Your task to perform on an android device: install app "Life360: Find Family & Friends" Image 0: 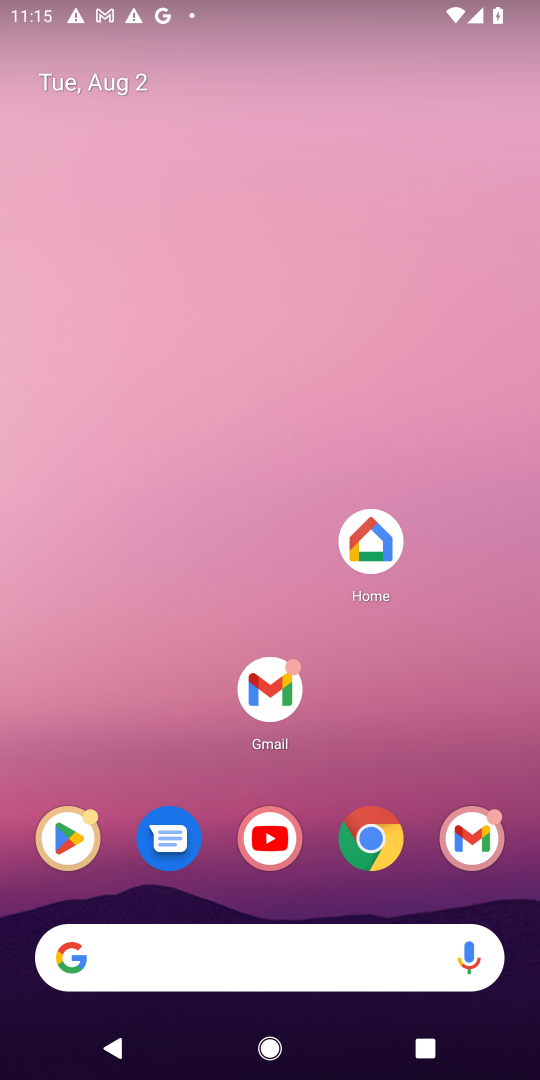
Step 0: drag from (359, 748) to (353, 199)
Your task to perform on an android device: install app "Life360: Find Family & Friends" Image 1: 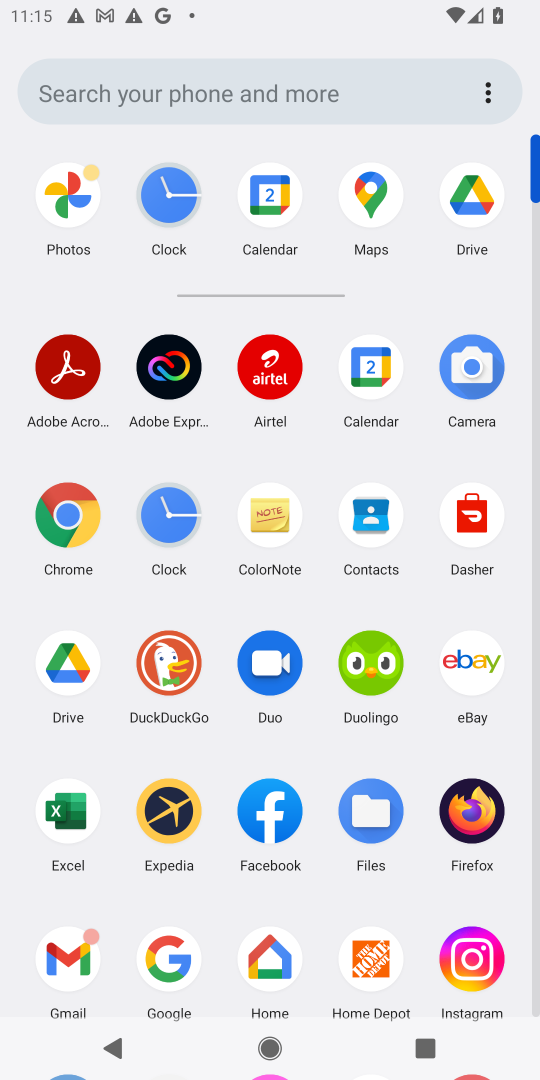
Step 1: drag from (313, 901) to (323, 579)
Your task to perform on an android device: install app "Life360: Find Family & Friends" Image 2: 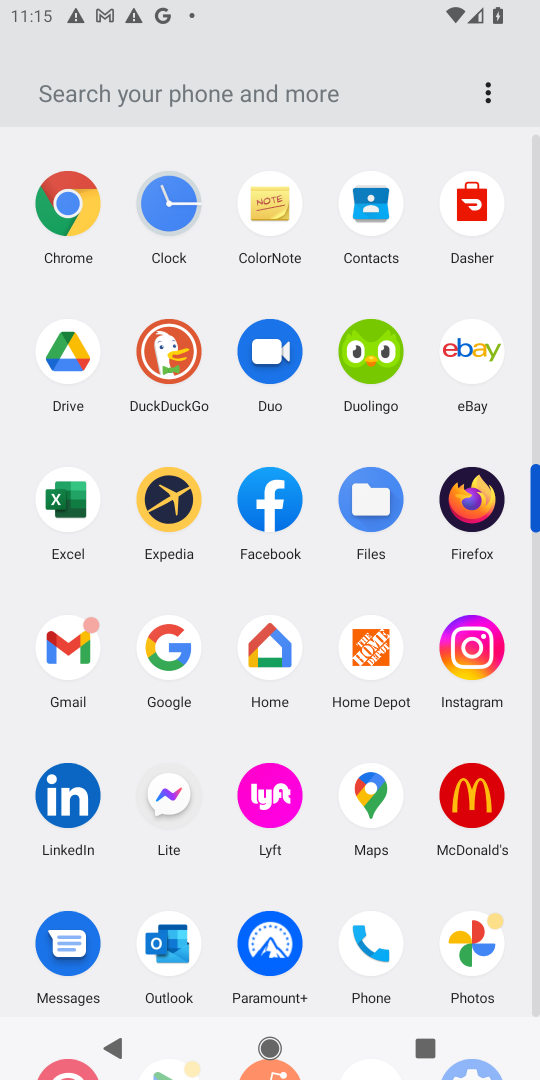
Step 2: drag from (312, 980) to (323, 701)
Your task to perform on an android device: install app "Life360: Find Family & Friends" Image 3: 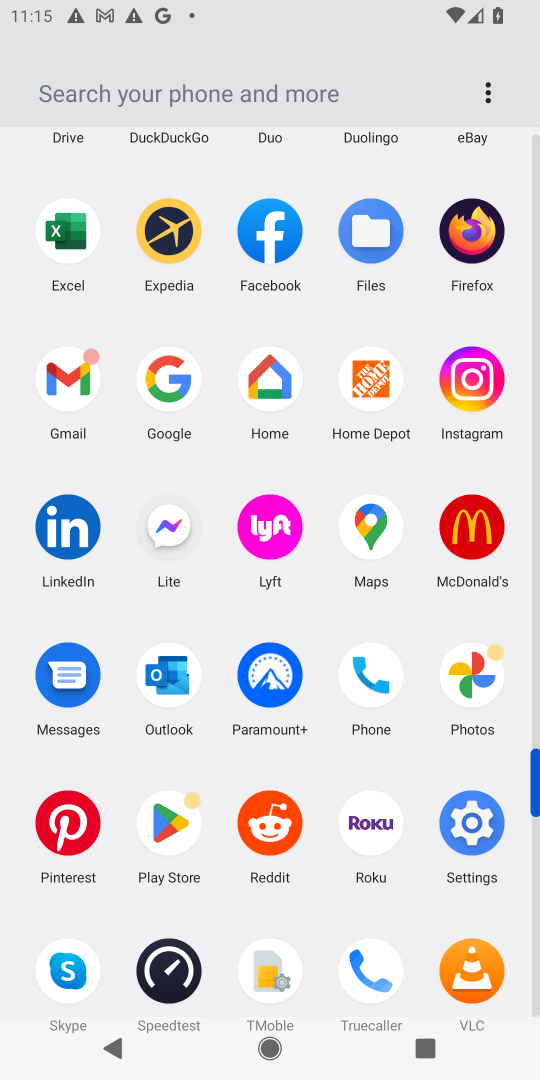
Step 3: click (178, 827)
Your task to perform on an android device: install app "Life360: Find Family & Friends" Image 4: 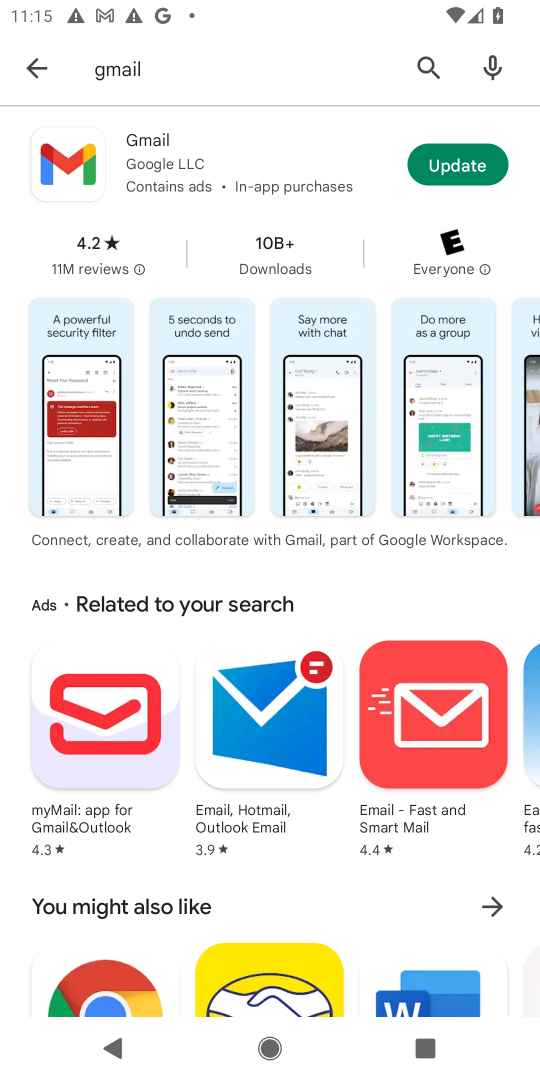
Step 4: click (426, 69)
Your task to perform on an android device: install app "Life360: Find Family & Friends" Image 5: 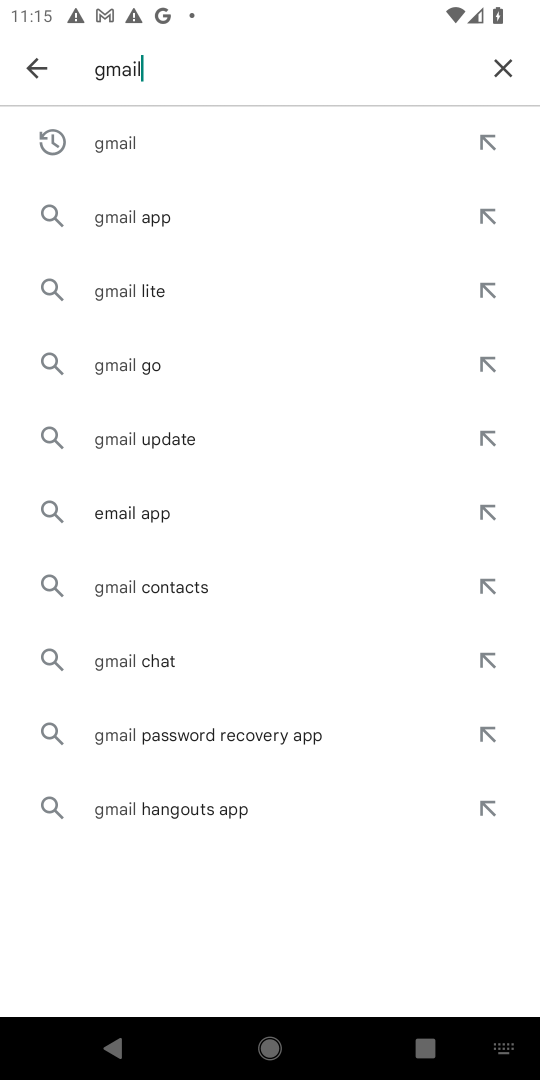
Step 5: click (494, 76)
Your task to perform on an android device: install app "Life360: Find Family & Friends" Image 6: 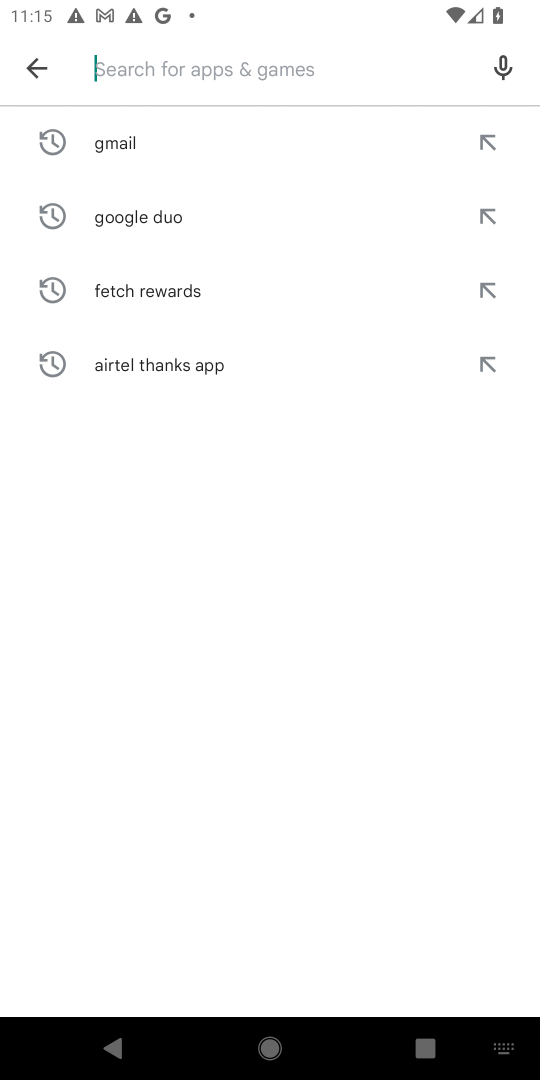
Step 6: type "life360 find family friends "
Your task to perform on an android device: install app "Life360: Find Family & Friends" Image 7: 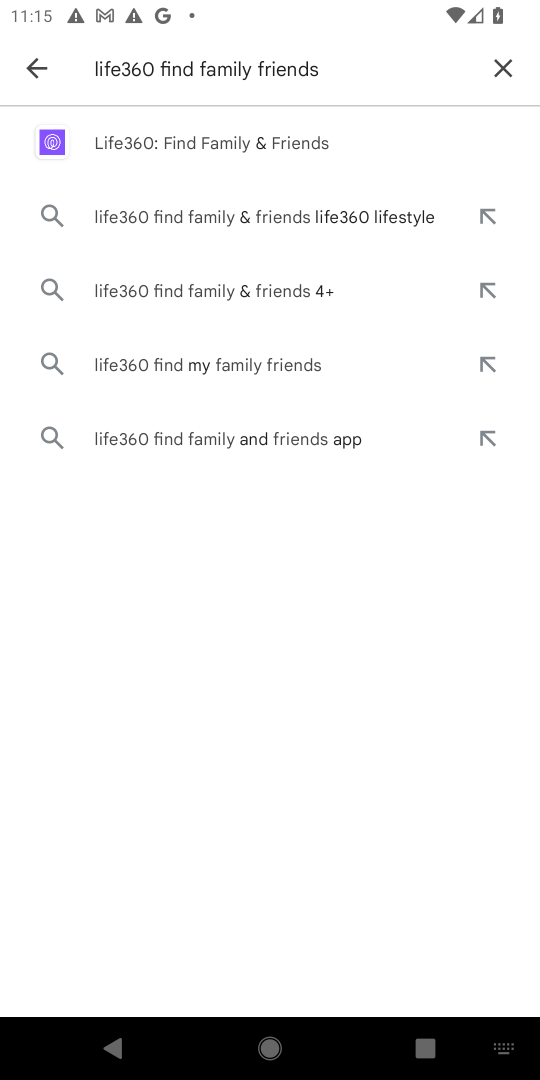
Step 7: click (388, 137)
Your task to perform on an android device: install app "Life360: Find Family & Friends" Image 8: 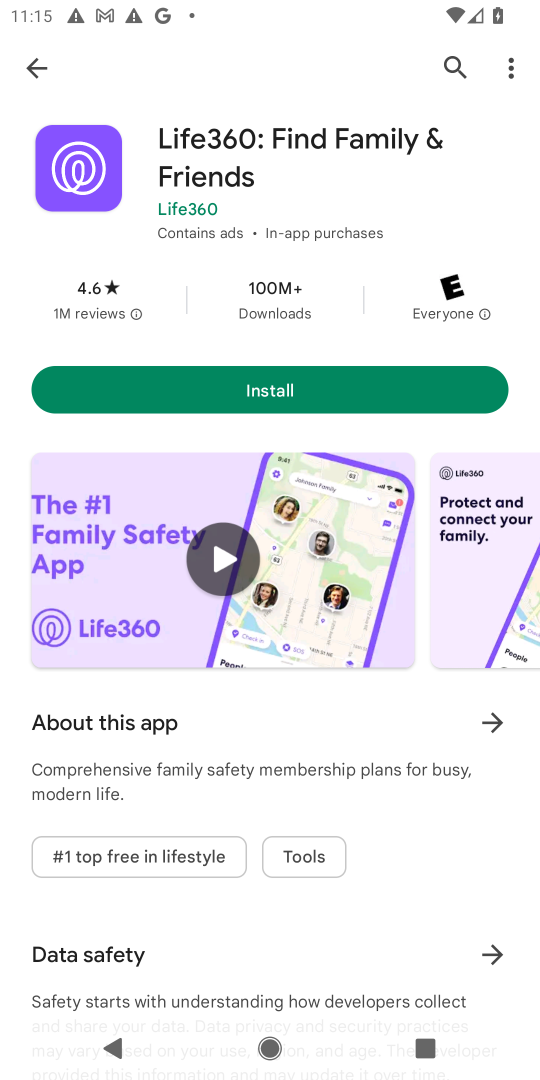
Step 8: click (318, 381)
Your task to perform on an android device: install app "Life360: Find Family & Friends" Image 9: 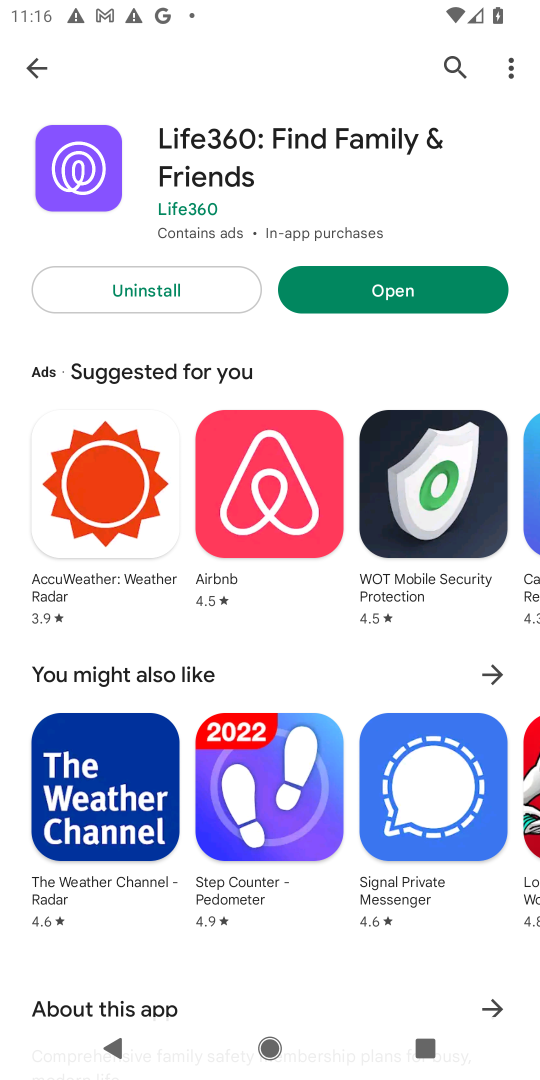
Step 9: task complete